Your task to perform on an android device: Search for "macbook pro 13 inch" on ebay, select the first entry, and add it to the cart. Image 0: 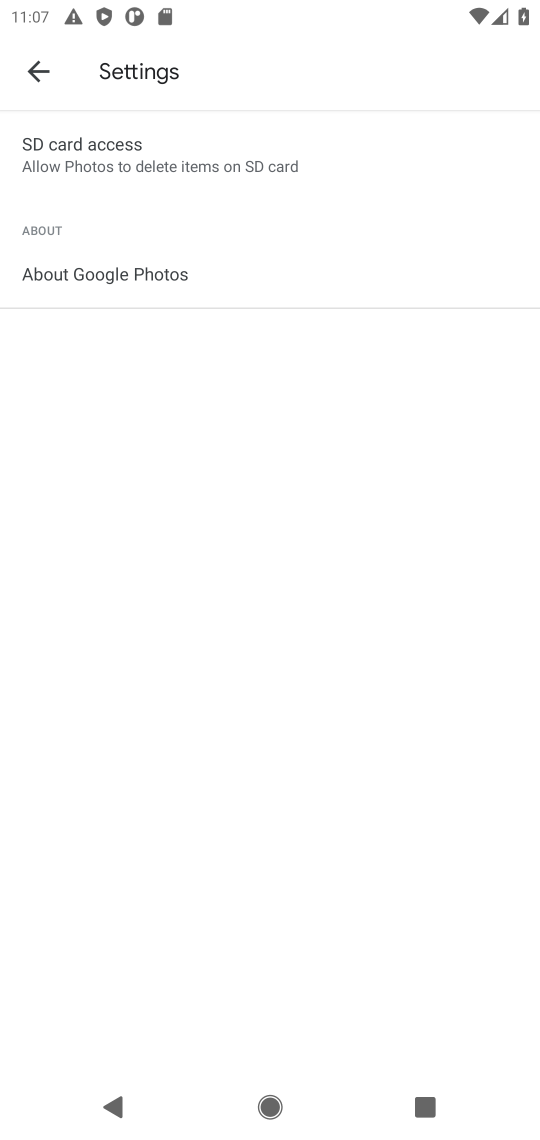
Step 0: press home button
Your task to perform on an android device: Search for "macbook pro 13 inch" on ebay, select the first entry, and add it to the cart. Image 1: 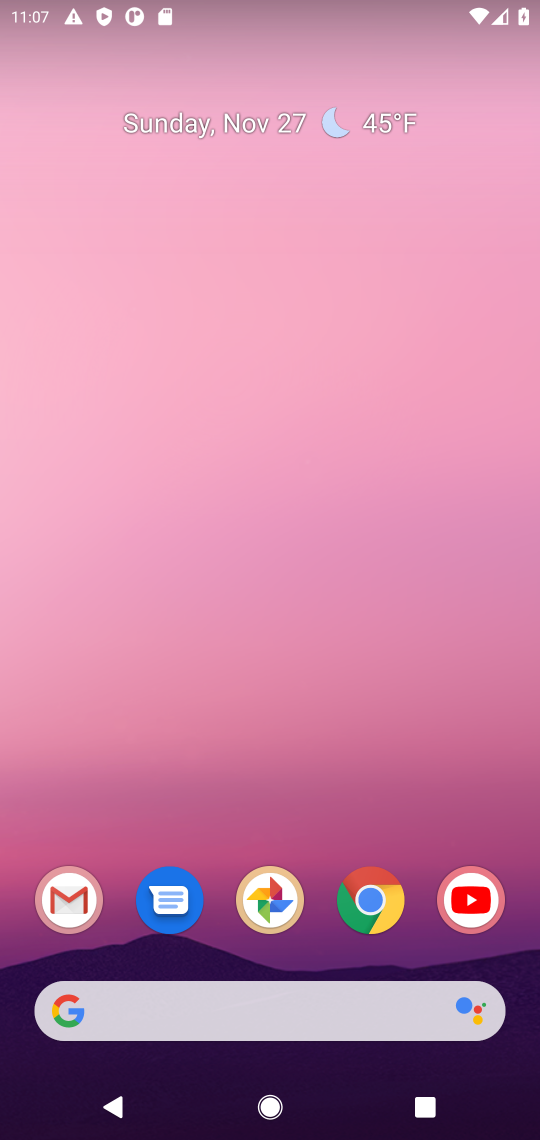
Step 1: click (381, 905)
Your task to perform on an android device: Search for "macbook pro 13 inch" on ebay, select the first entry, and add it to the cart. Image 2: 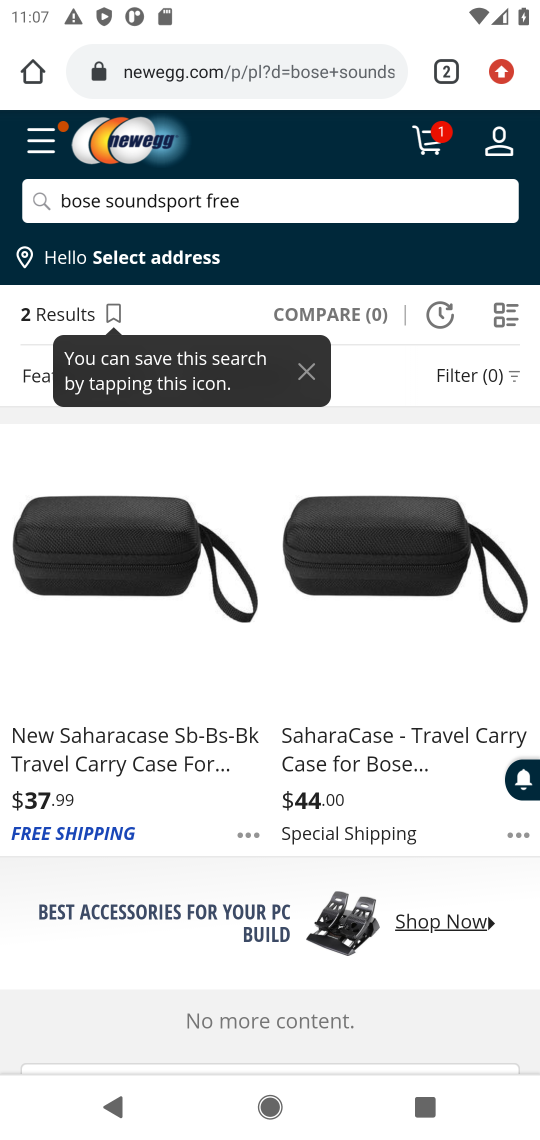
Step 2: click (227, 75)
Your task to perform on an android device: Search for "macbook pro 13 inch" on ebay, select the first entry, and add it to the cart. Image 3: 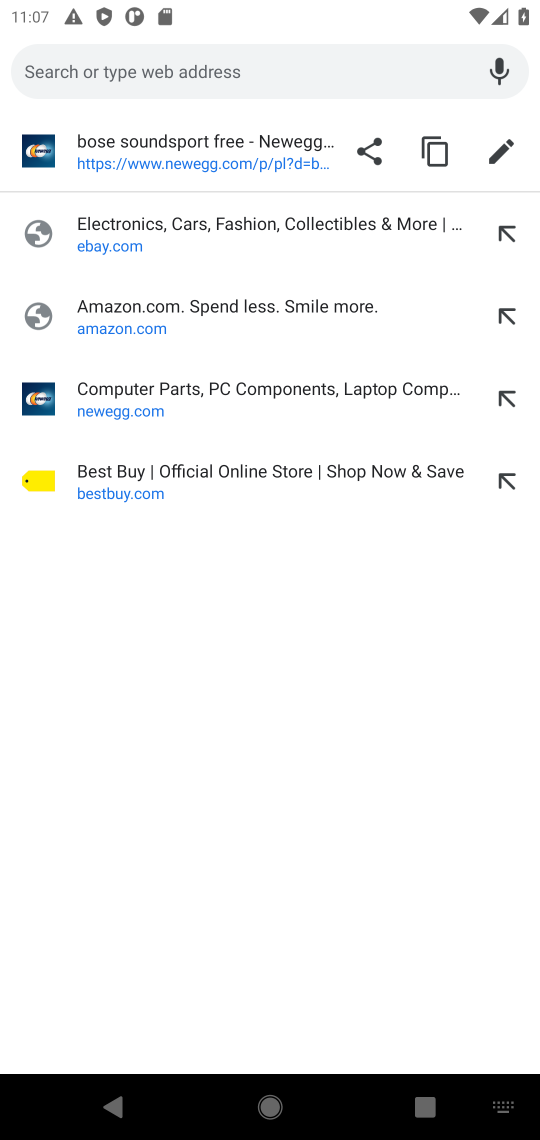
Step 3: click (84, 245)
Your task to perform on an android device: Search for "macbook pro 13 inch" on ebay, select the first entry, and add it to the cart. Image 4: 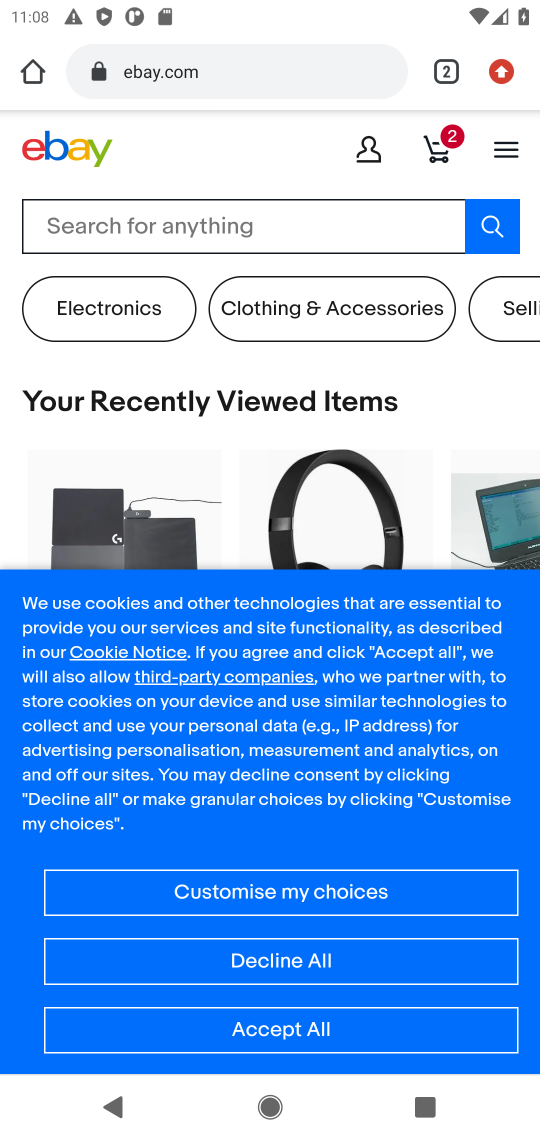
Step 4: click (105, 224)
Your task to perform on an android device: Search for "macbook pro 13 inch" on ebay, select the first entry, and add it to the cart. Image 5: 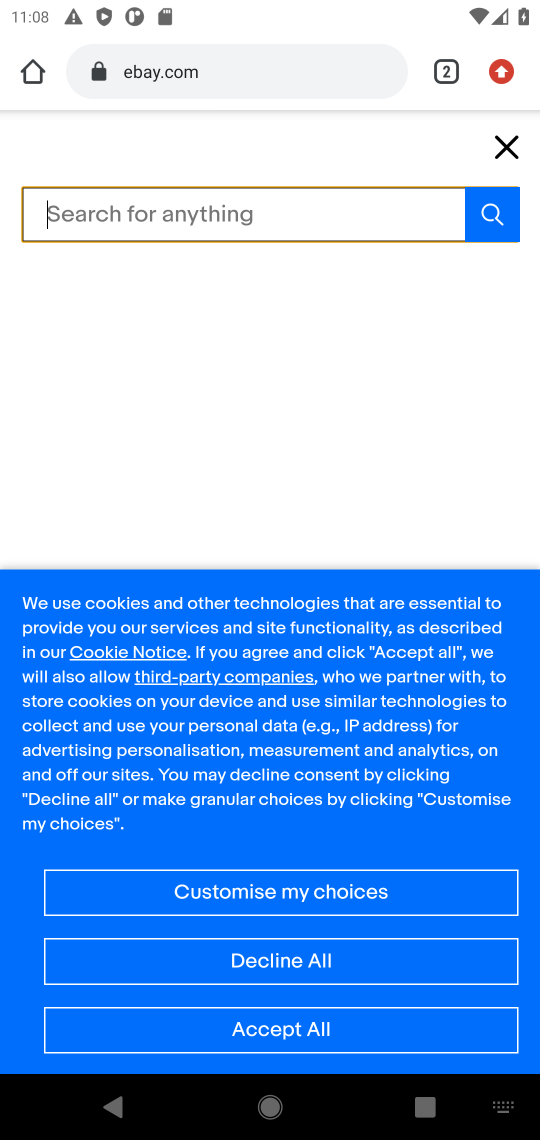
Step 5: type "macbook pro 13 inch"
Your task to perform on an android device: Search for "macbook pro 13 inch" on ebay, select the first entry, and add it to the cart. Image 6: 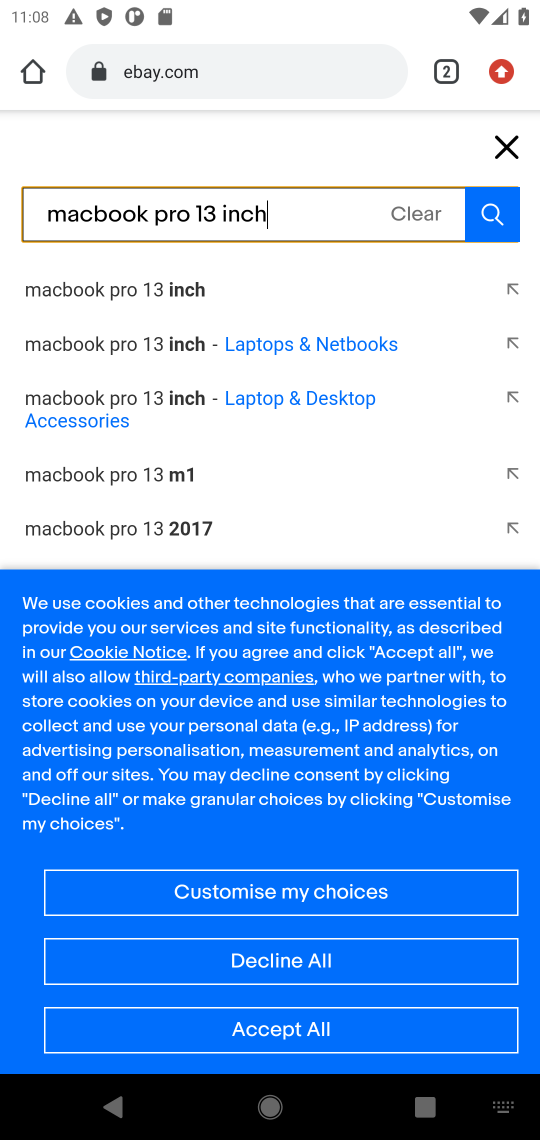
Step 6: click (119, 295)
Your task to perform on an android device: Search for "macbook pro 13 inch" on ebay, select the first entry, and add it to the cart. Image 7: 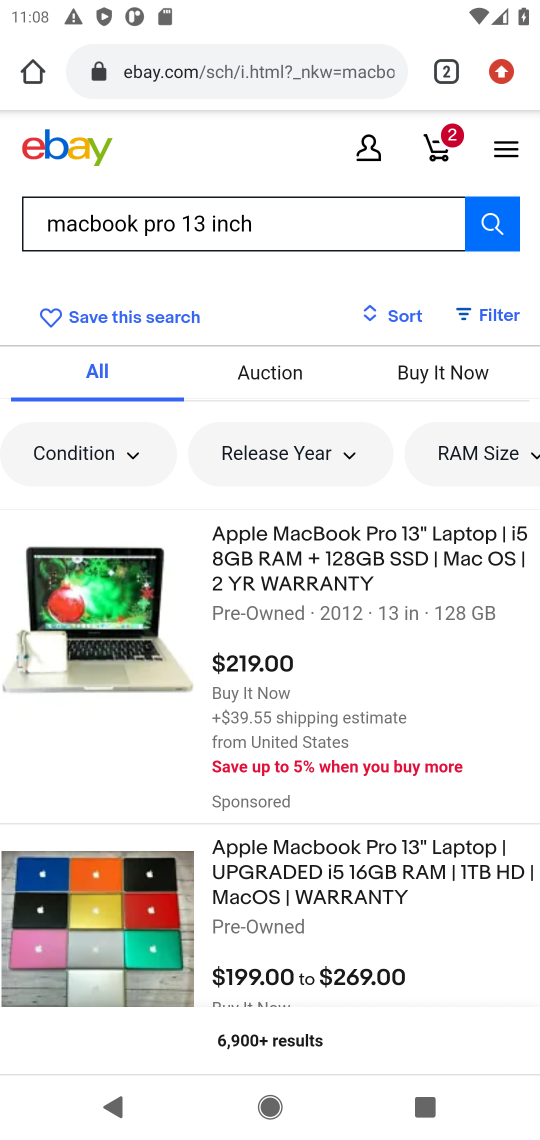
Step 7: click (298, 577)
Your task to perform on an android device: Search for "macbook pro 13 inch" on ebay, select the first entry, and add it to the cart. Image 8: 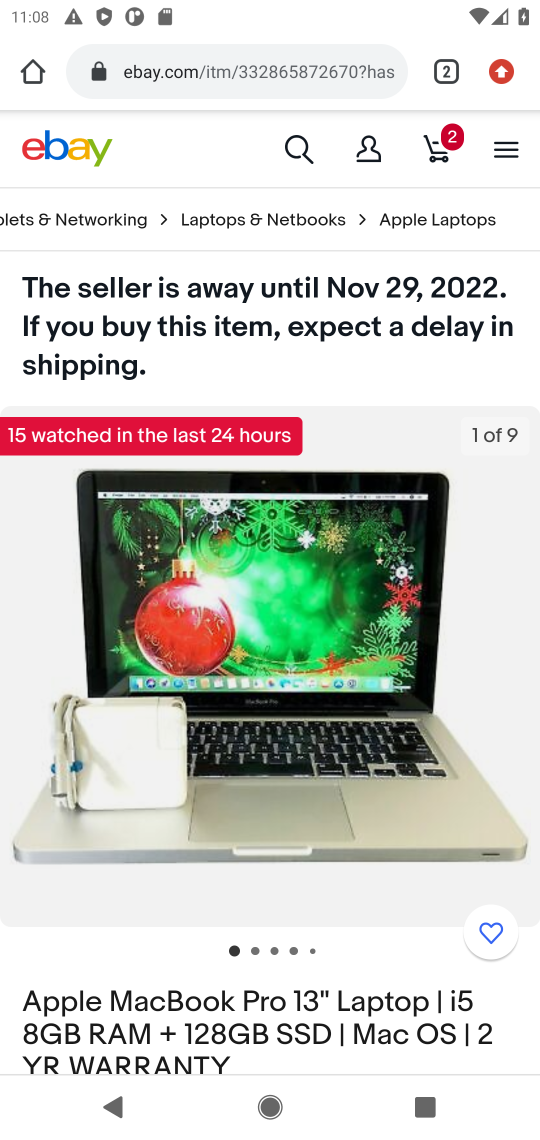
Step 8: drag from (250, 801) to (292, 478)
Your task to perform on an android device: Search for "macbook pro 13 inch" on ebay, select the first entry, and add it to the cart. Image 9: 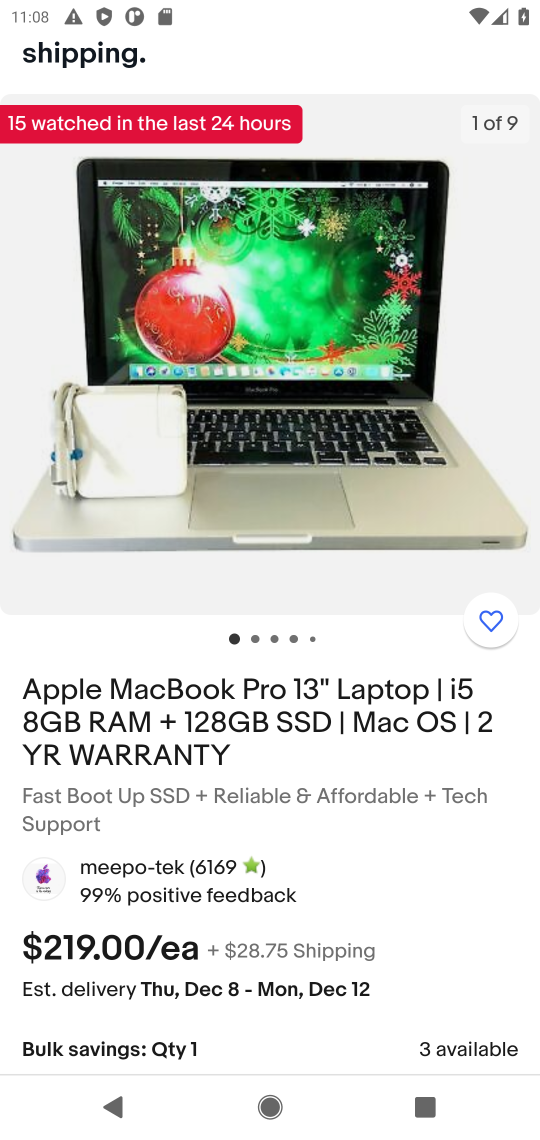
Step 9: drag from (249, 798) to (266, 479)
Your task to perform on an android device: Search for "macbook pro 13 inch" on ebay, select the first entry, and add it to the cart. Image 10: 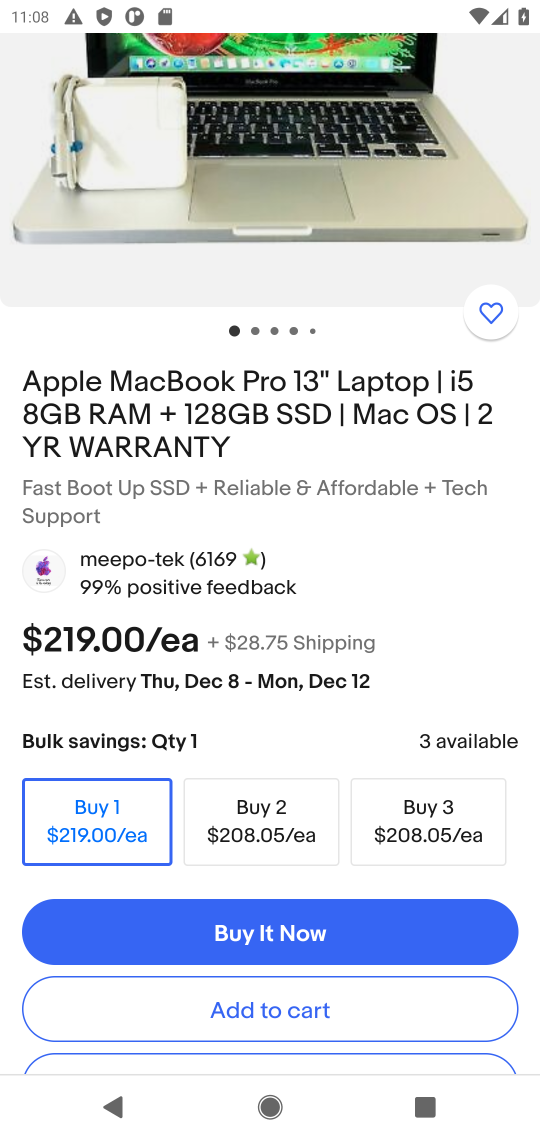
Step 10: click (208, 998)
Your task to perform on an android device: Search for "macbook pro 13 inch" on ebay, select the first entry, and add it to the cart. Image 11: 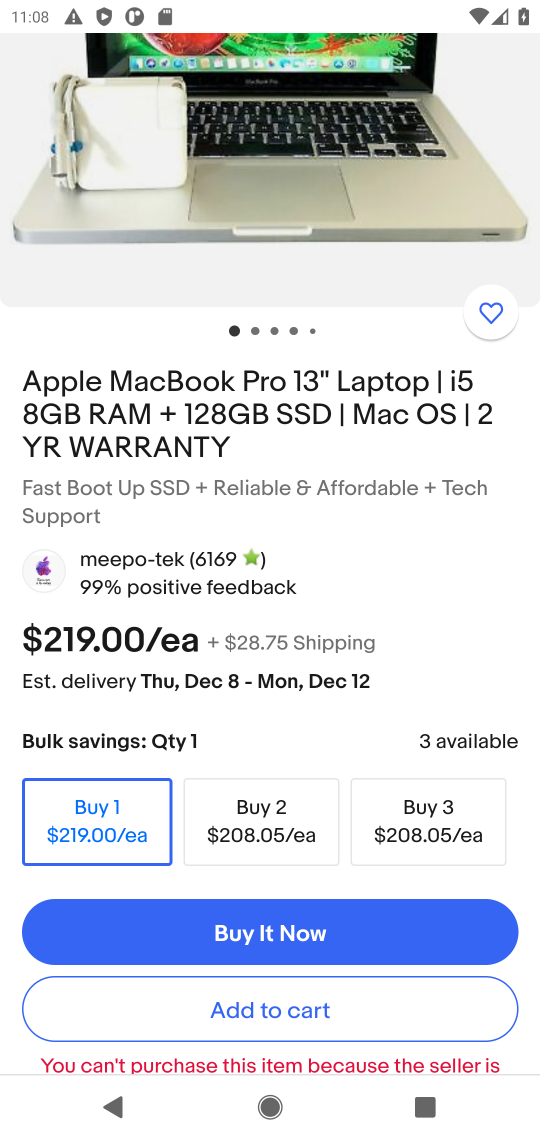
Step 11: task complete